Your task to perform on an android device: Open Reddit.com Image 0: 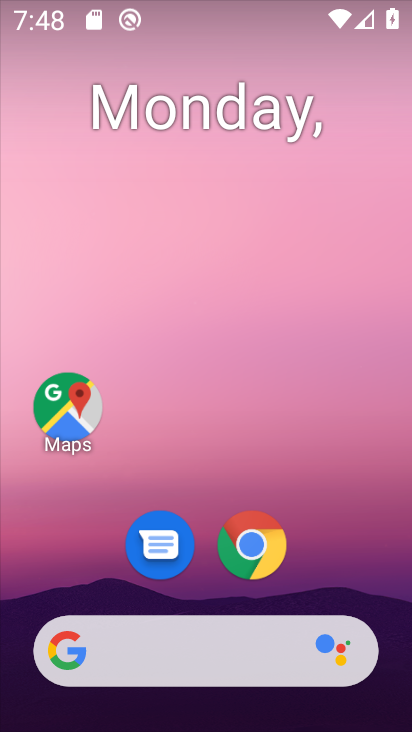
Step 0: click (253, 551)
Your task to perform on an android device: Open Reddit.com Image 1: 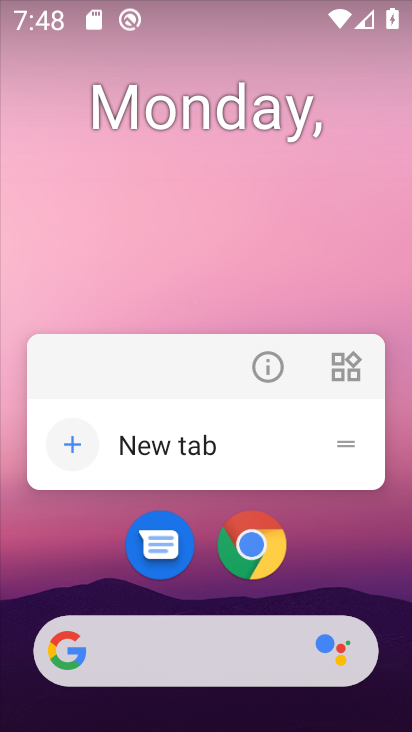
Step 1: click (253, 552)
Your task to perform on an android device: Open Reddit.com Image 2: 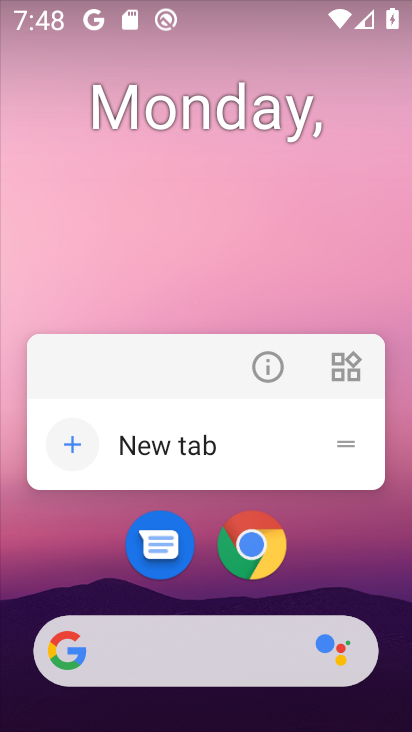
Step 2: click (253, 556)
Your task to perform on an android device: Open Reddit.com Image 3: 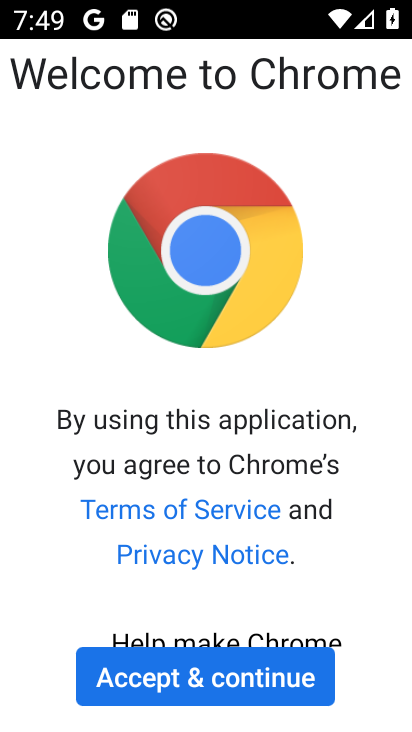
Step 3: click (192, 674)
Your task to perform on an android device: Open Reddit.com Image 4: 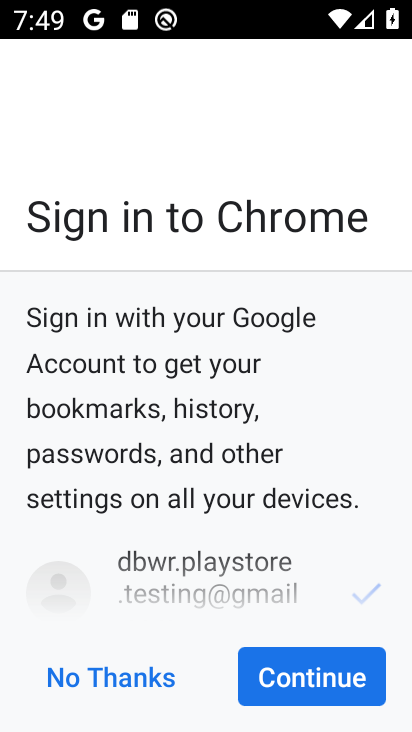
Step 4: click (311, 668)
Your task to perform on an android device: Open Reddit.com Image 5: 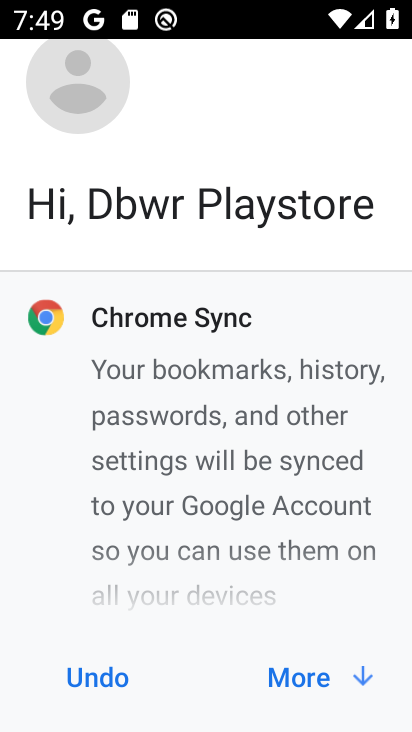
Step 5: click (306, 681)
Your task to perform on an android device: Open Reddit.com Image 6: 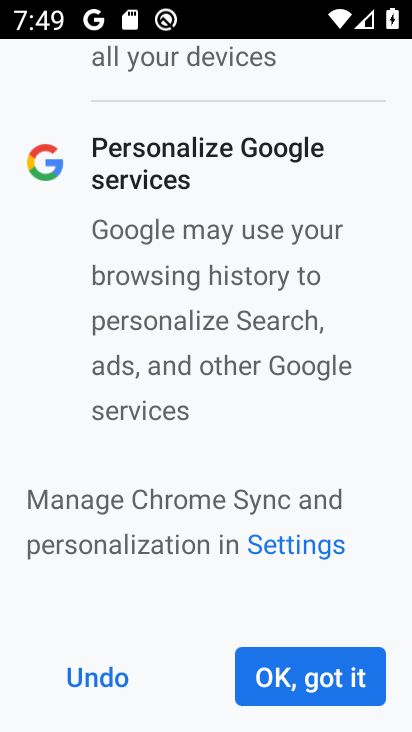
Step 6: click (306, 682)
Your task to perform on an android device: Open Reddit.com Image 7: 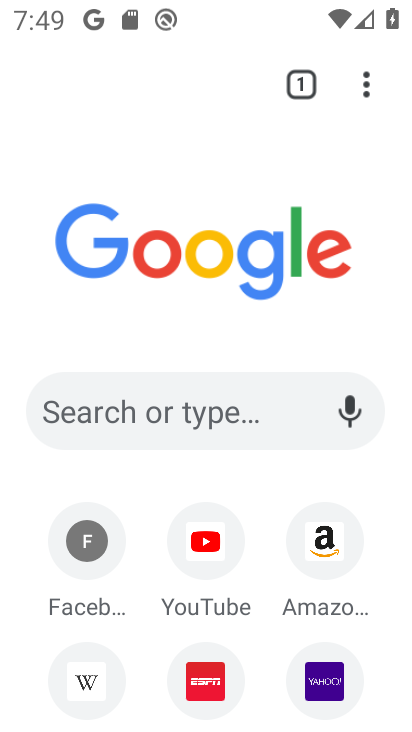
Step 7: drag from (151, 493) to (221, 300)
Your task to perform on an android device: Open Reddit.com Image 8: 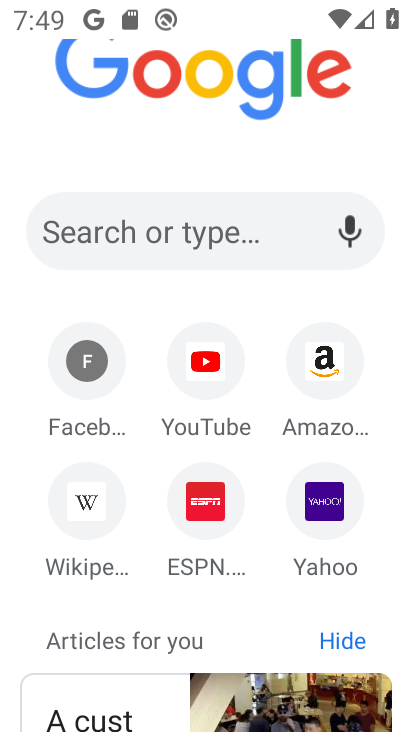
Step 8: click (131, 224)
Your task to perform on an android device: Open Reddit.com Image 9: 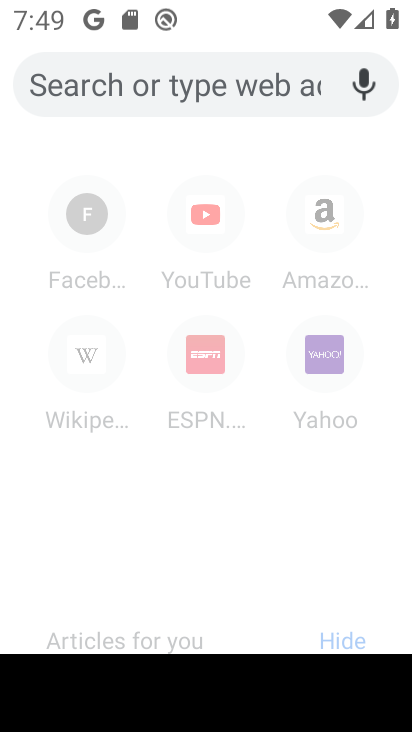
Step 9: type "reddit.com"
Your task to perform on an android device: Open Reddit.com Image 10: 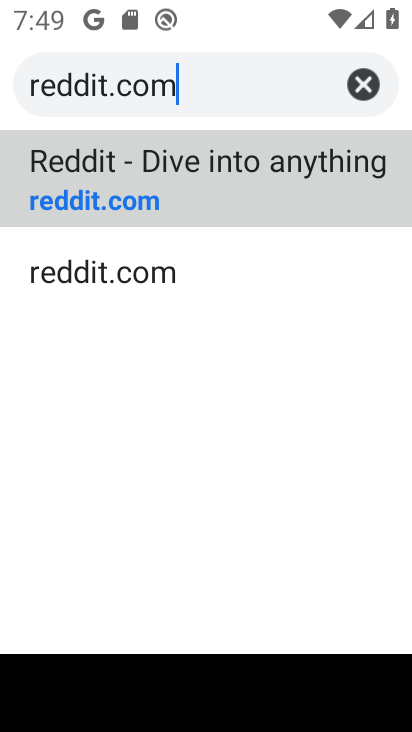
Step 10: click (258, 177)
Your task to perform on an android device: Open Reddit.com Image 11: 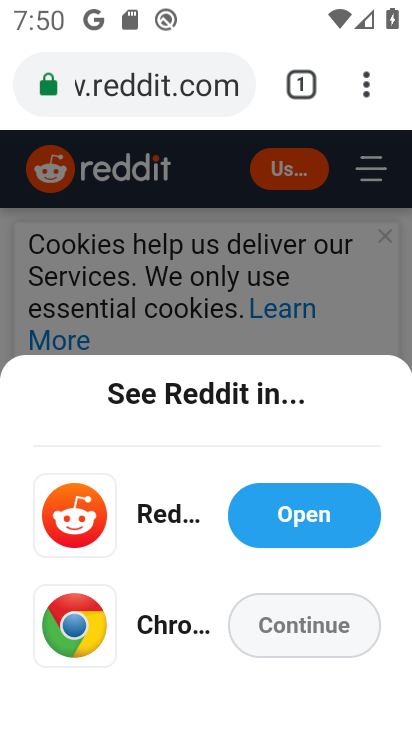
Step 11: task complete